Your task to perform on an android device: turn off javascript in the chrome app Image 0: 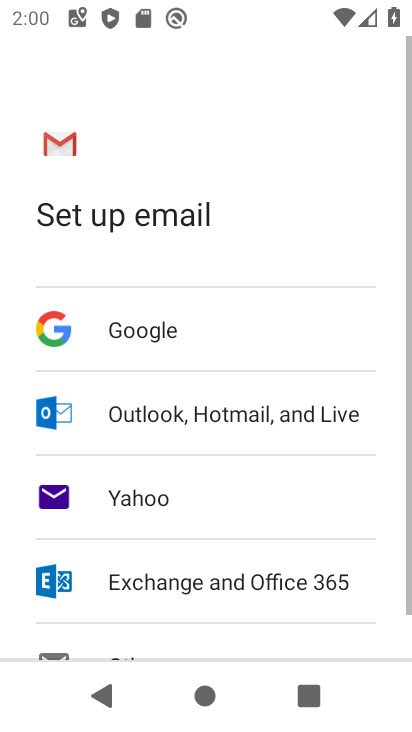
Step 0: press home button
Your task to perform on an android device: turn off javascript in the chrome app Image 1: 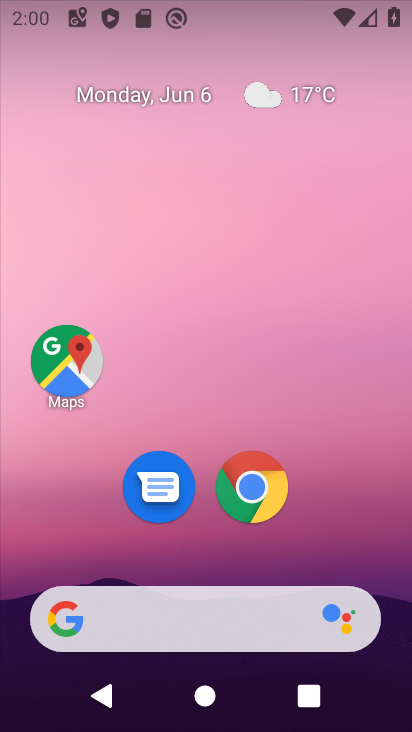
Step 1: click (278, 486)
Your task to perform on an android device: turn off javascript in the chrome app Image 2: 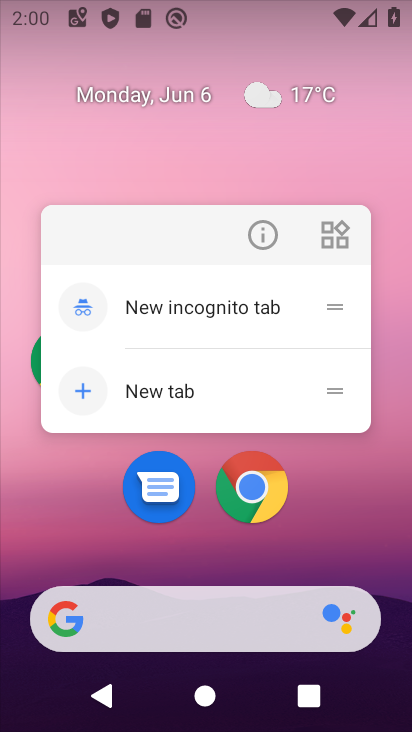
Step 2: click (266, 492)
Your task to perform on an android device: turn off javascript in the chrome app Image 3: 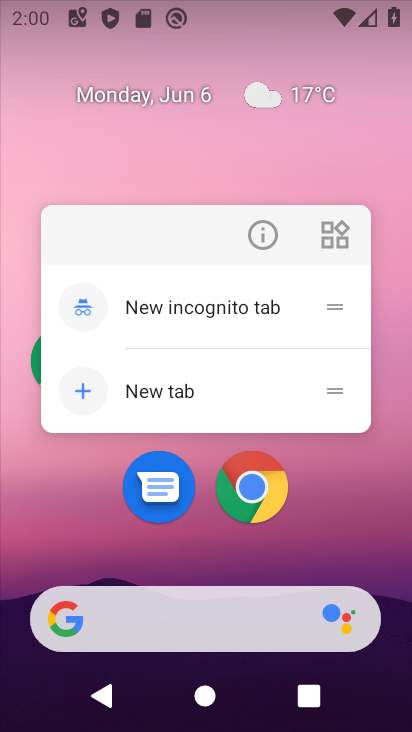
Step 3: click (263, 503)
Your task to perform on an android device: turn off javascript in the chrome app Image 4: 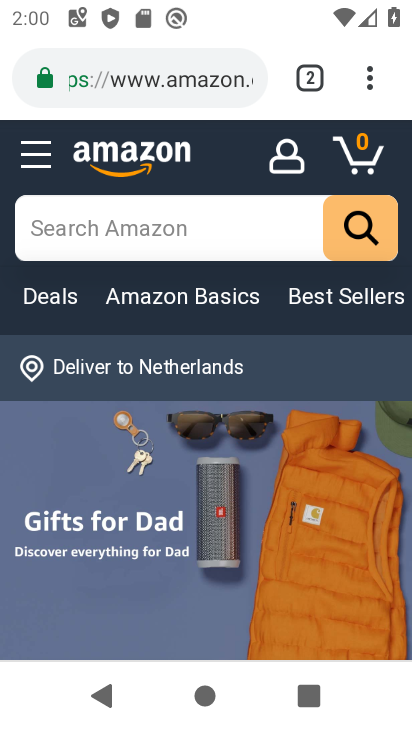
Step 4: drag from (351, 94) to (188, 550)
Your task to perform on an android device: turn off javascript in the chrome app Image 5: 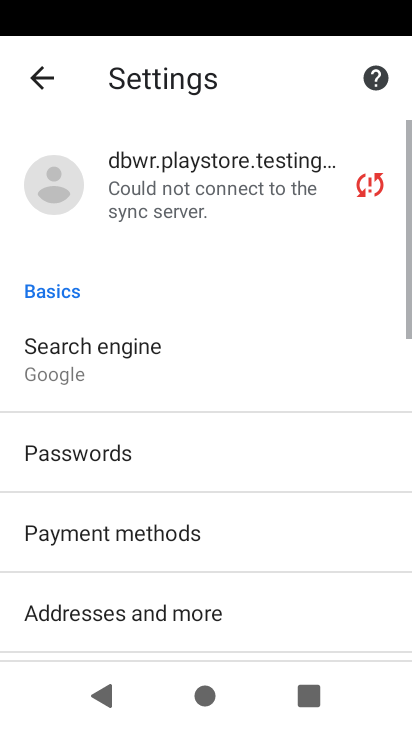
Step 5: drag from (168, 589) to (251, 257)
Your task to perform on an android device: turn off javascript in the chrome app Image 6: 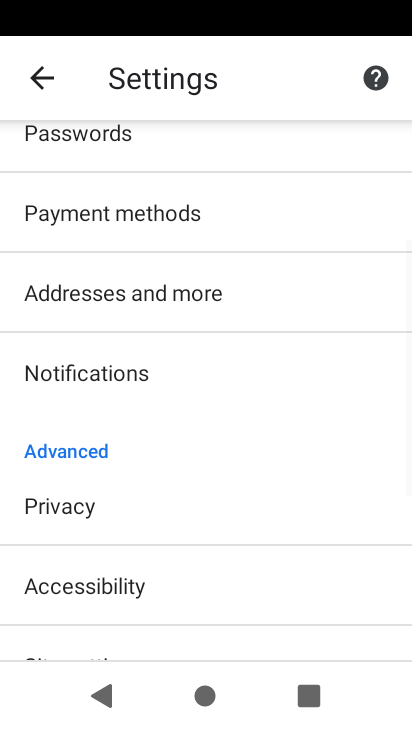
Step 6: drag from (177, 592) to (262, 309)
Your task to perform on an android device: turn off javascript in the chrome app Image 7: 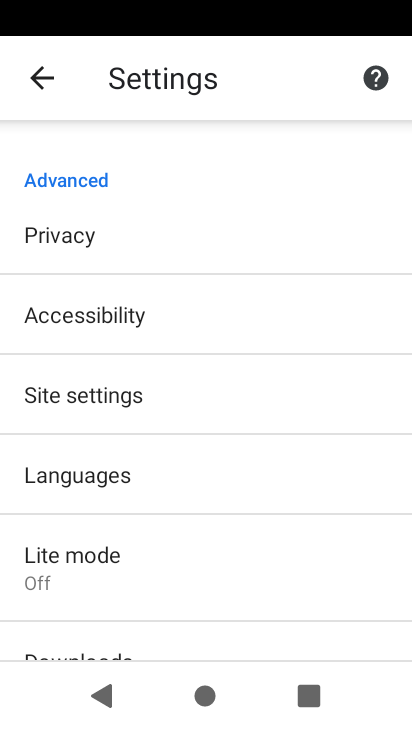
Step 7: click (155, 406)
Your task to perform on an android device: turn off javascript in the chrome app Image 8: 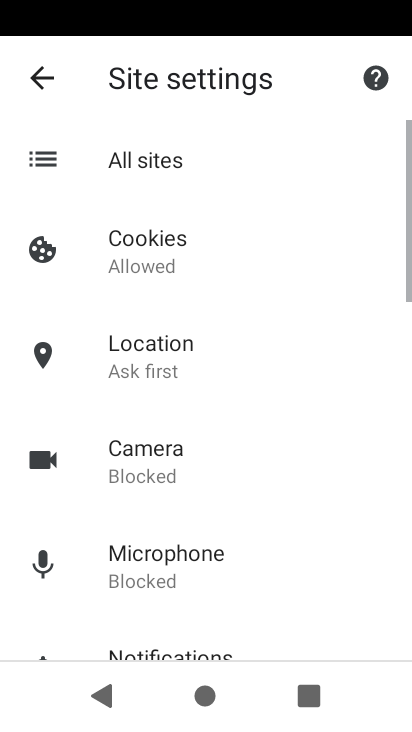
Step 8: drag from (154, 572) to (249, 239)
Your task to perform on an android device: turn off javascript in the chrome app Image 9: 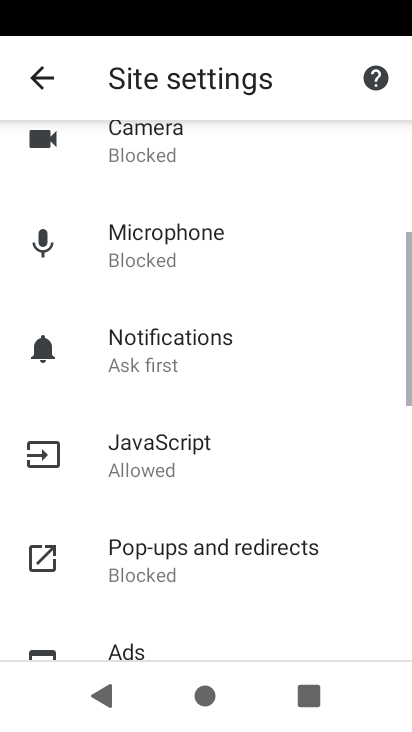
Step 9: click (156, 463)
Your task to perform on an android device: turn off javascript in the chrome app Image 10: 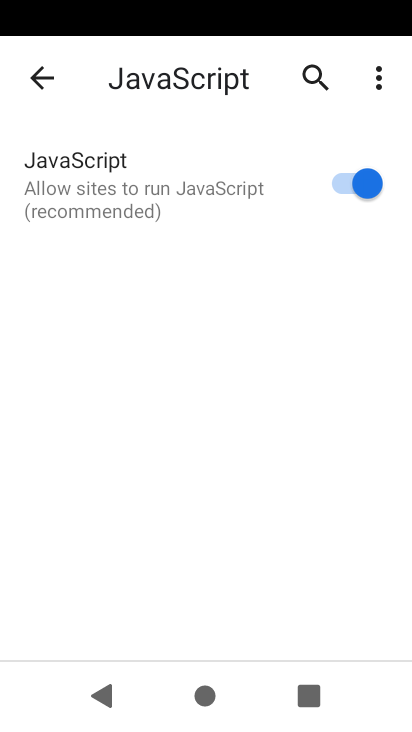
Step 10: click (347, 183)
Your task to perform on an android device: turn off javascript in the chrome app Image 11: 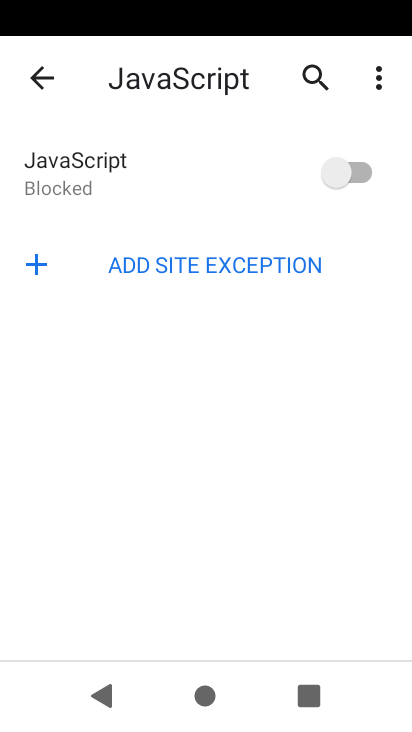
Step 11: task complete